Your task to perform on an android device: Go to wifi settings Image 0: 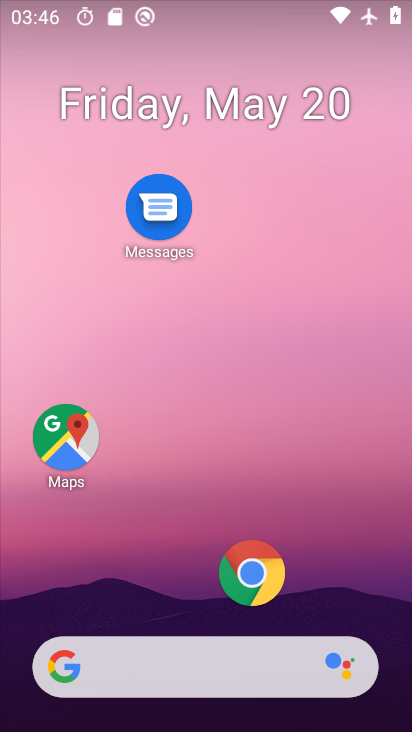
Step 0: drag from (199, 548) to (274, 171)
Your task to perform on an android device: Go to wifi settings Image 1: 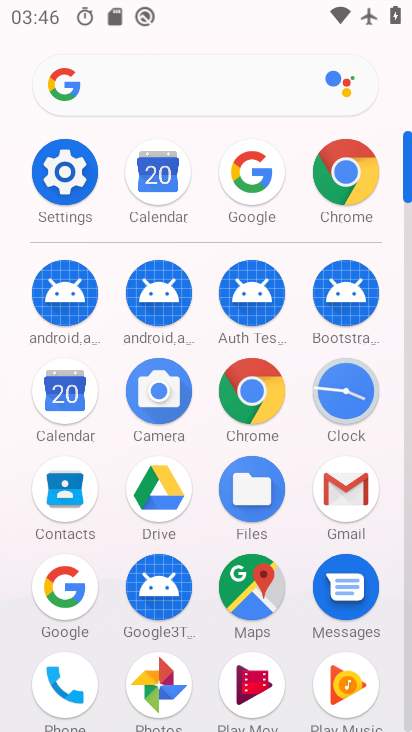
Step 1: click (67, 174)
Your task to perform on an android device: Go to wifi settings Image 2: 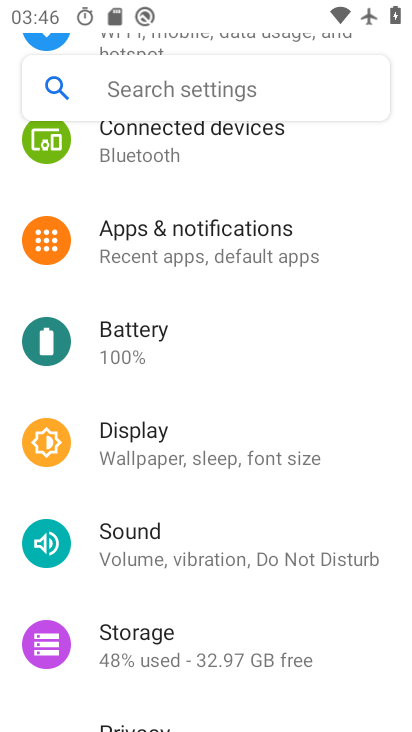
Step 2: drag from (125, 186) to (129, 680)
Your task to perform on an android device: Go to wifi settings Image 3: 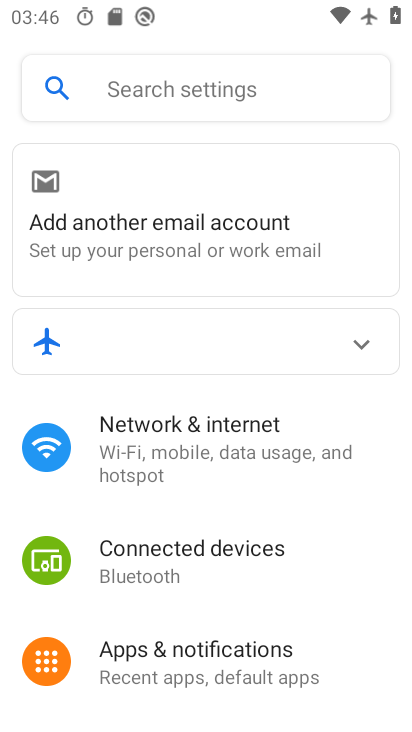
Step 3: click (167, 439)
Your task to perform on an android device: Go to wifi settings Image 4: 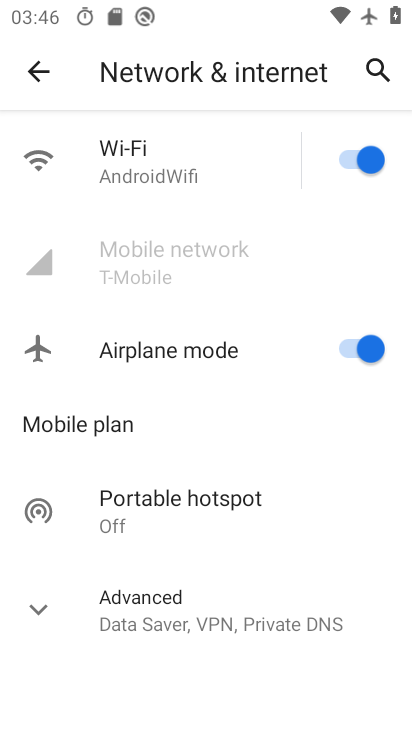
Step 4: click (130, 168)
Your task to perform on an android device: Go to wifi settings Image 5: 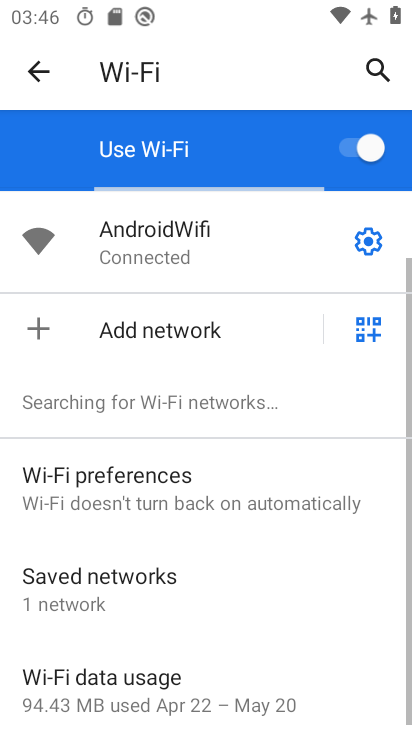
Step 5: task complete